Your task to perform on an android device: change your default location settings in chrome Image 0: 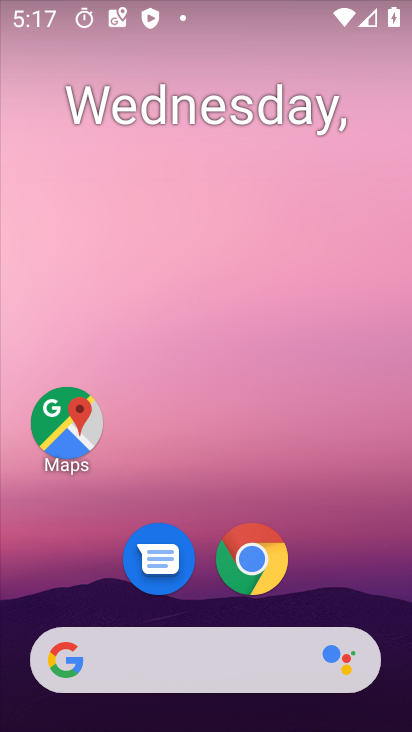
Step 0: click (251, 569)
Your task to perform on an android device: change your default location settings in chrome Image 1: 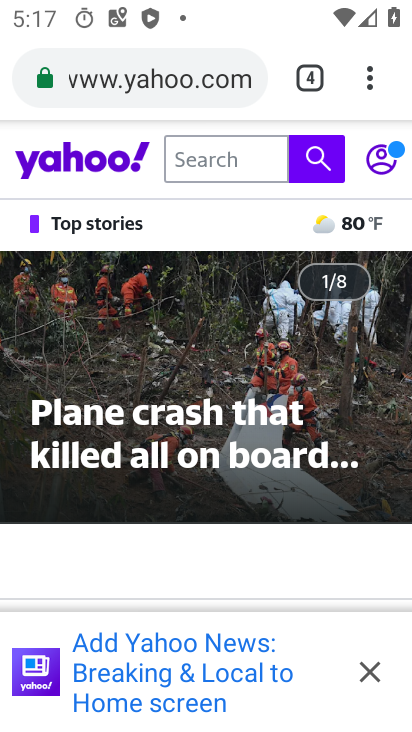
Step 1: click (370, 87)
Your task to perform on an android device: change your default location settings in chrome Image 2: 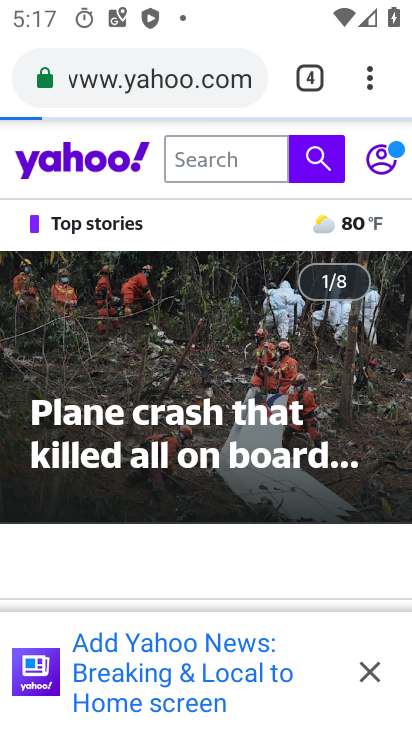
Step 2: drag from (284, 457) to (249, 141)
Your task to perform on an android device: change your default location settings in chrome Image 3: 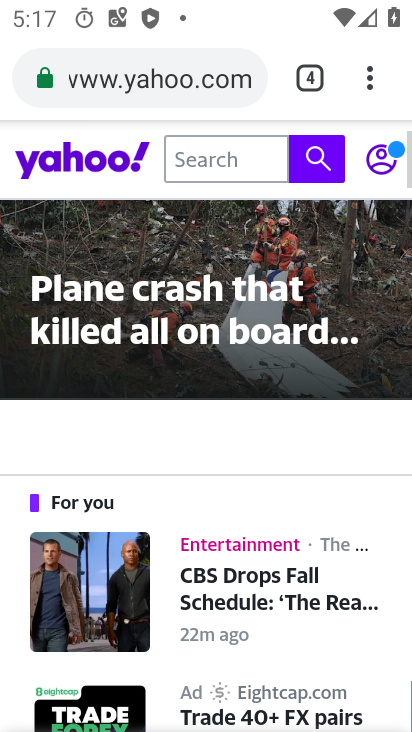
Step 3: click (364, 76)
Your task to perform on an android device: change your default location settings in chrome Image 4: 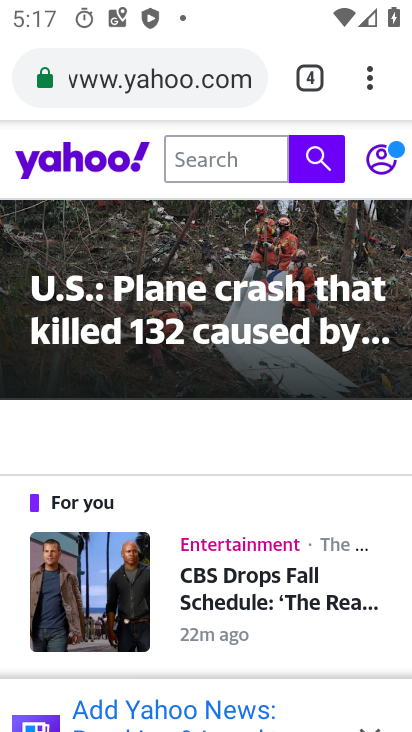
Step 4: click (369, 80)
Your task to perform on an android device: change your default location settings in chrome Image 5: 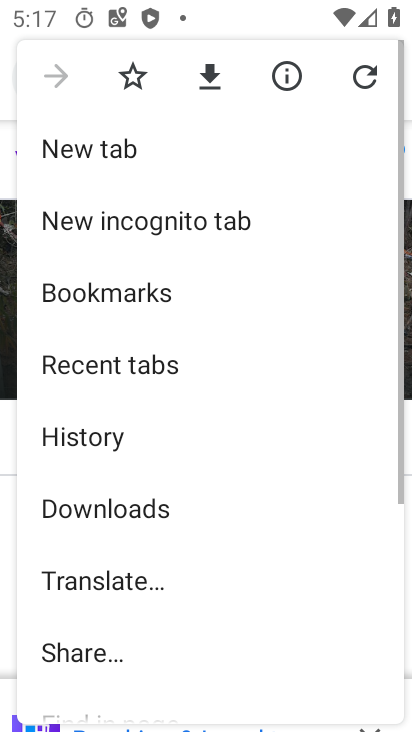
Step 5: drag from (269, 579) to (278, 115)
Your task to perform on an android device: change your default location settings in chrome Image 6: 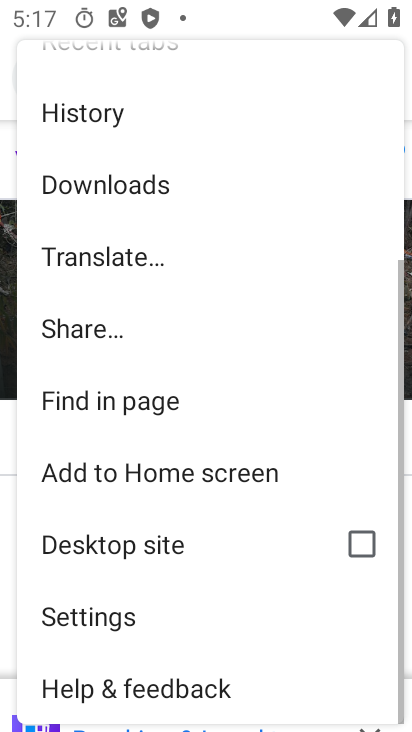
Step 6: drag from (229, 531) to (224, 315)
Your task to perform on an android device: change your default location settings in chrome Image 7: 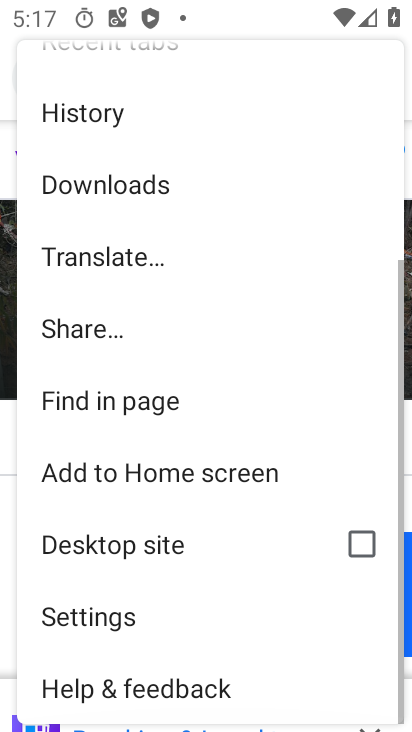
Step 7: click (125, 615)
Your task to perform on an android device: change your default location settings in chrome Image 8: 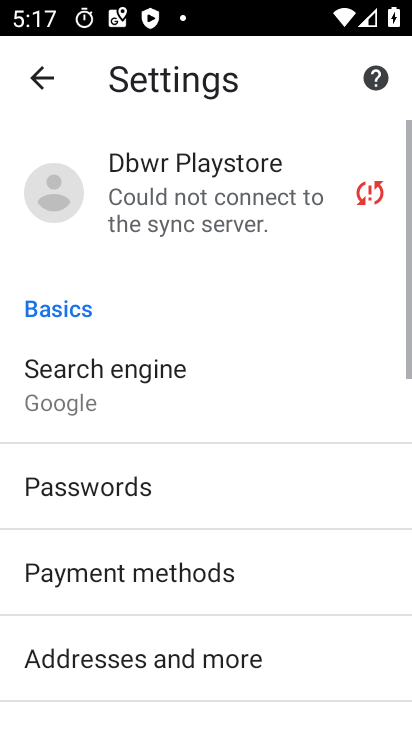
Step 8: drag from (247, 629) to (253, 168)
Your task to perform on an android device: change your default location settings in chrome Image 9: 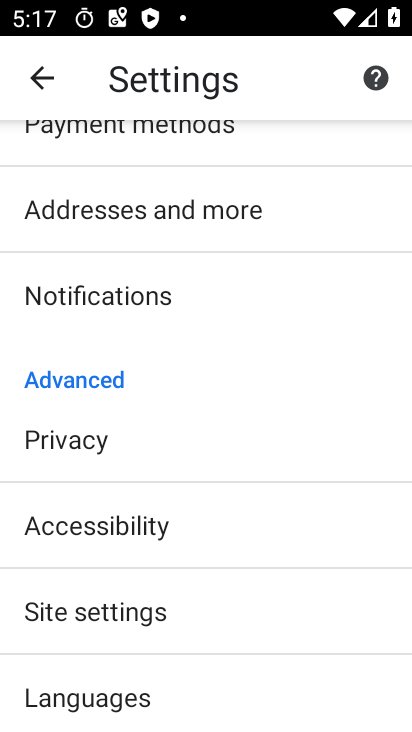
Step 9: click (147, 618)
Your task to perform on an android device: change your default location settings in chrome Image 10: 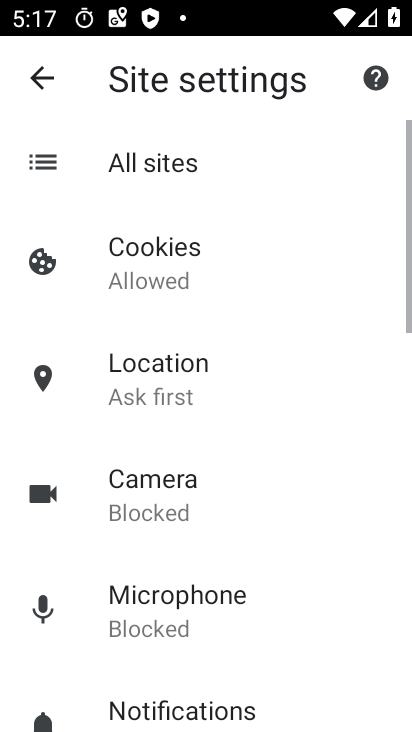
Step 10: click (204, 380)
Your task to perform on an android device: change your default location settings in chrome Image 11: 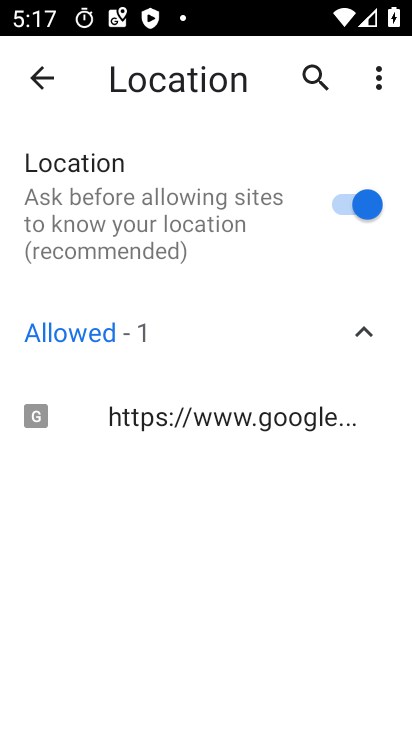
Step 11: click (350, 195)
Your task to perform on an android device: change your default location settings in chrome Image 12: 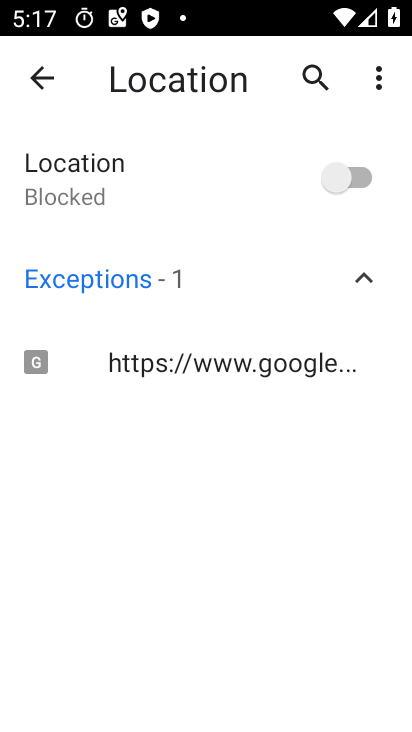
Step 12: task complete